Your task to perform on an android device: Search for "jbl flip 4" on bestbuy.com, select the first entry, and add it to the cart. Image 0: 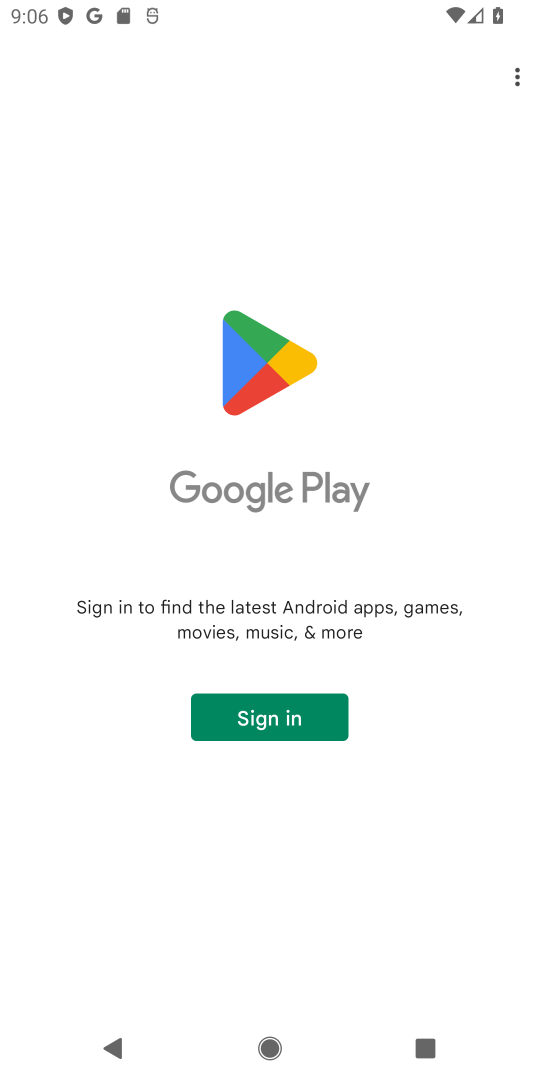
Step 0: press home button
Your task to perform on an android device: Search for "jbl flip 4" on bestbuy.com, select the first entry, and add it to the cart. Image 1: 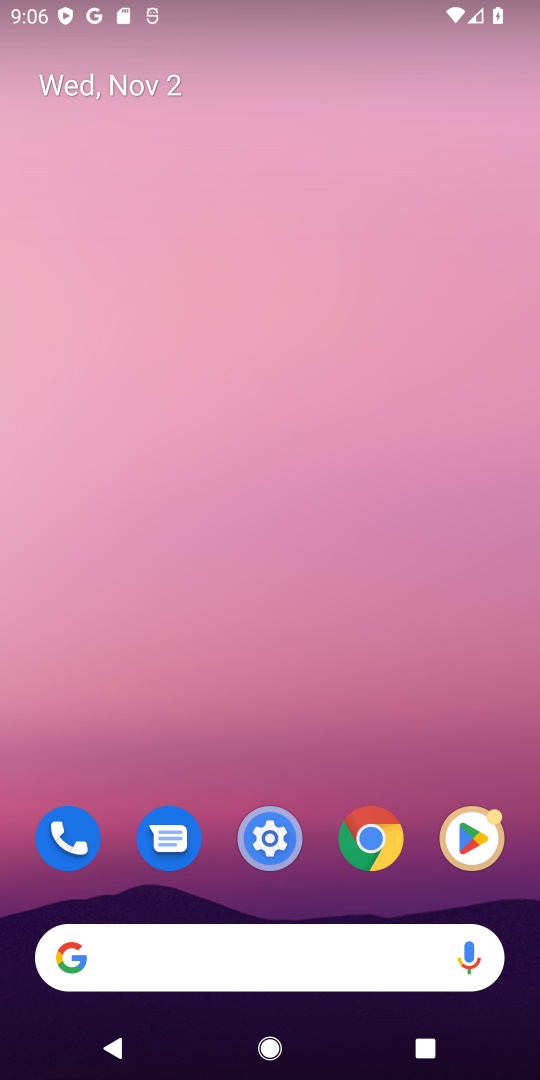
Step 1: click (364, 835)
Your task to perform on an android device: Search for "jbl flip 4" on bestbuy.com, select the first entry, and add it to the cart. Image 2: 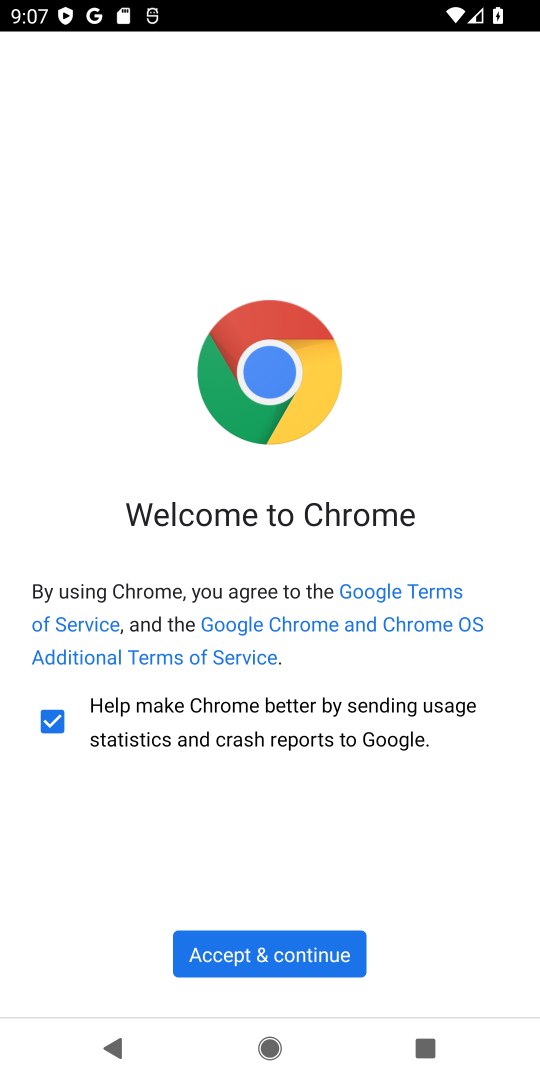
Step 2: click (254, 956)
Your task to perform on an android device: Search for "jbl flip 4" on bestbuy.com, select the first entry, and add it to the cart. Image 3: 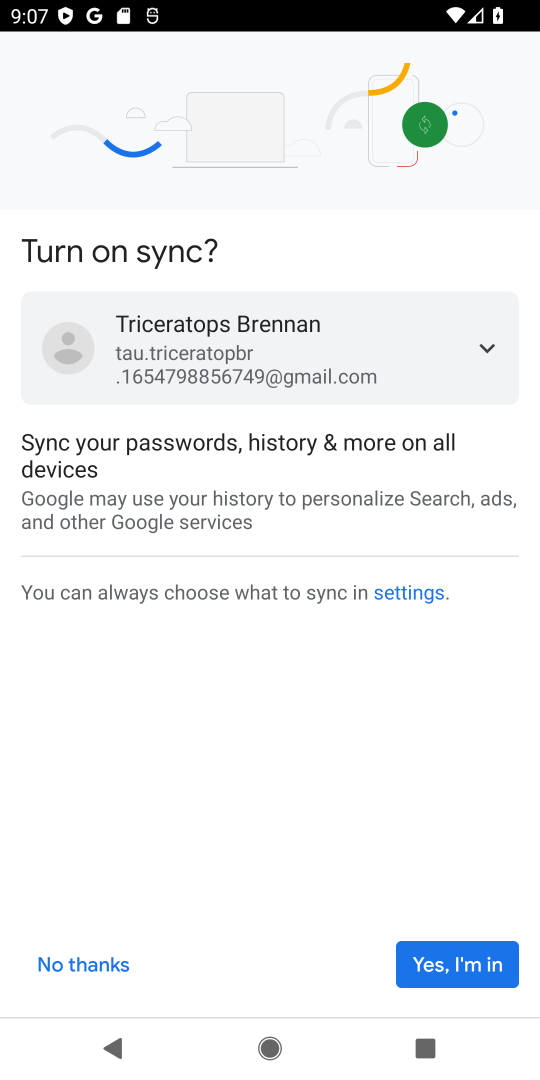
Step 3: click (471, 958)
Your task to perform on an android device: Search for "jbl flip 4" on bestbuy.com, select the first entry, and add it to the cart. Image 4: 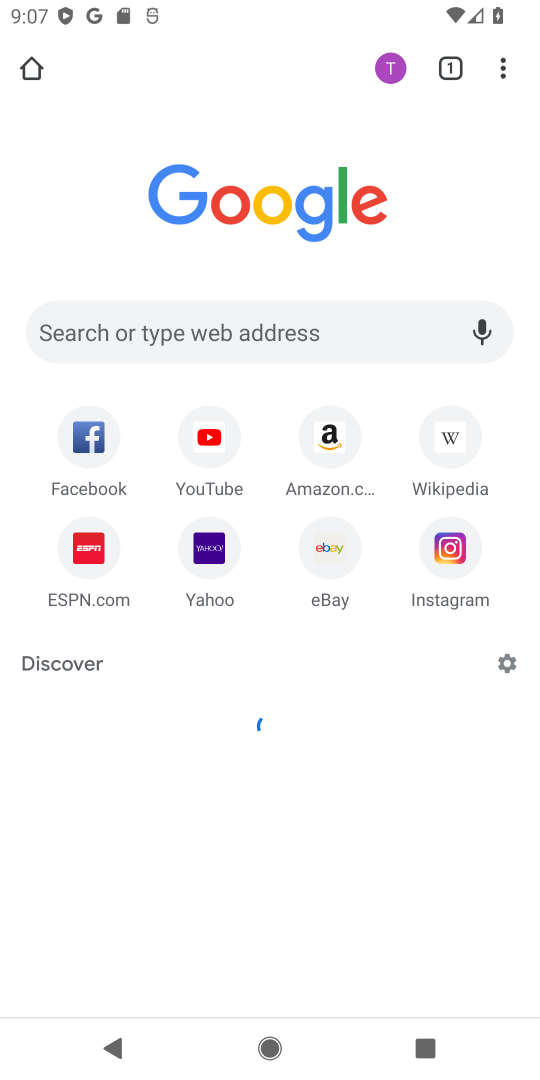
Step 4: click (333, 338)
Your task to perform on an android device: Search for "jbl flip 4" on bestbuy.com, select the first entry, and add it to the cart. Image 5: 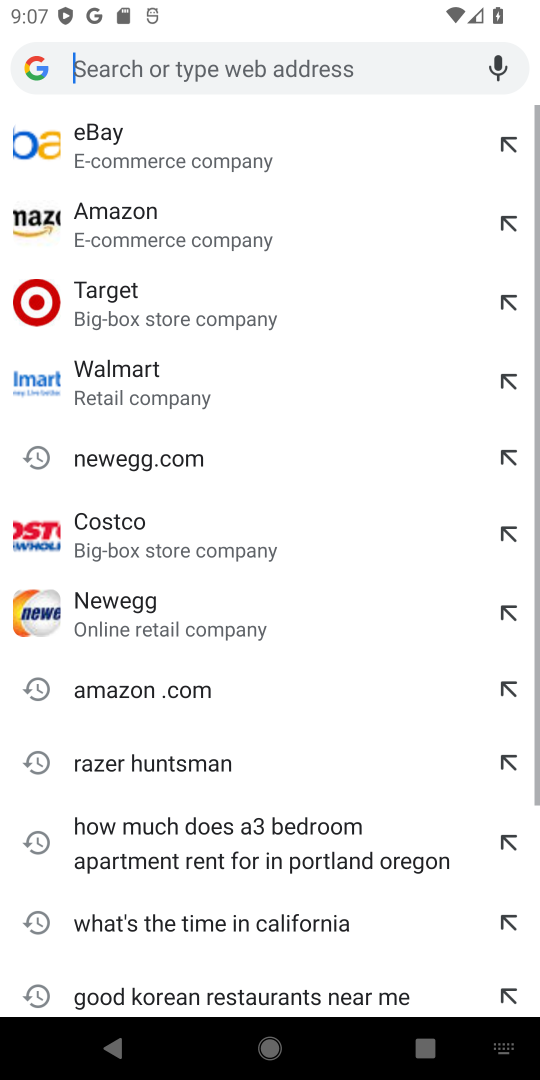
Step 5: type "bestbuy"
Your task to perform on an android device: Search for "jbl flip 4" on bestbuy.com, select the first entry, and add it to the cart. Image 6: 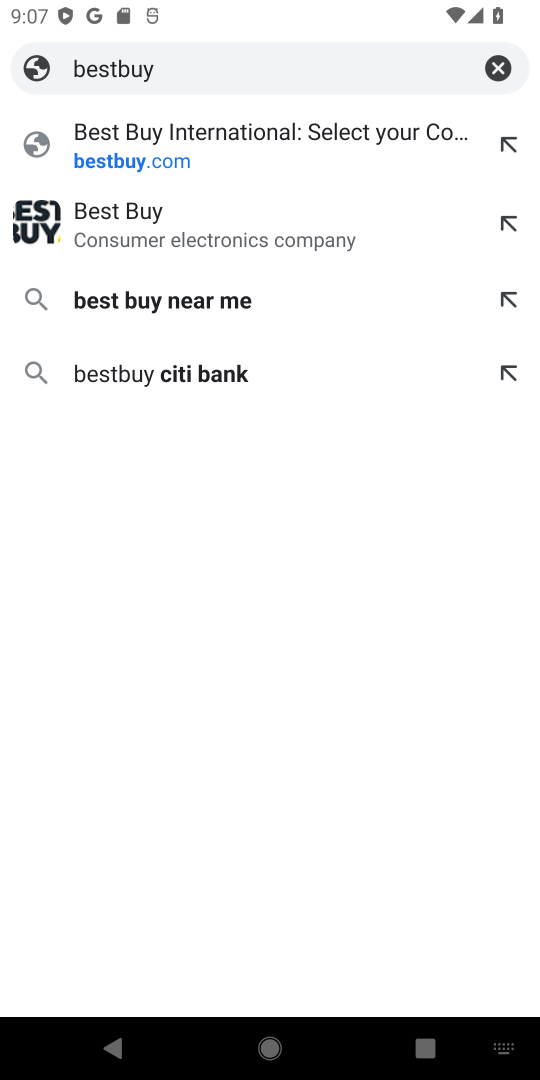
Step 6: click (259, 144)
Your task to perform on an android device: Search for "jbl flip 4" on bestbuy.com, select the first entry, and add it to the cart. Image 7: 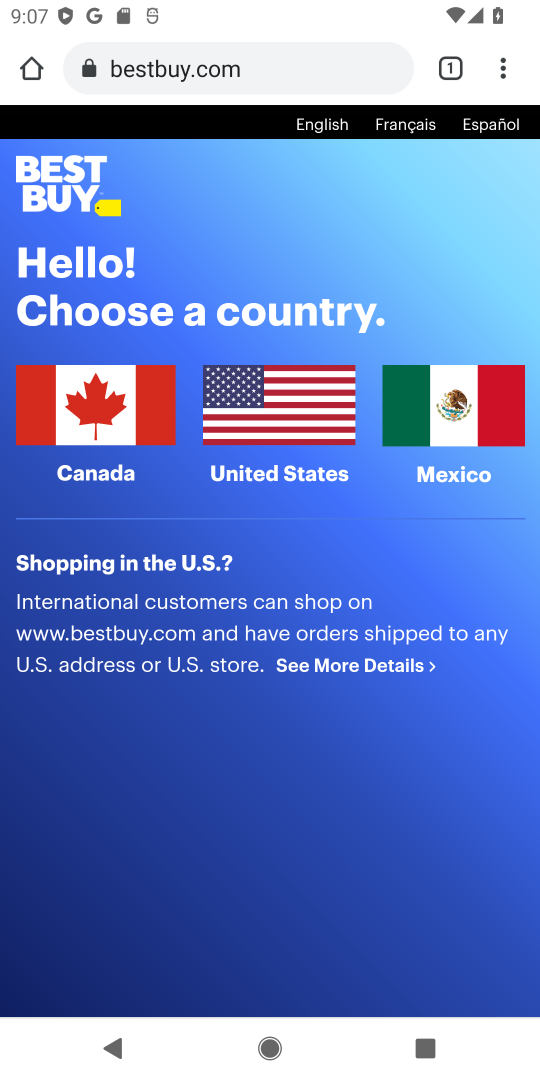
Step 7: click (324, 398)
Your task to perform on an android device: Search for "jbl flip 4" on bestbuy.com, select the first entry, and add it to the cart. Image 8: 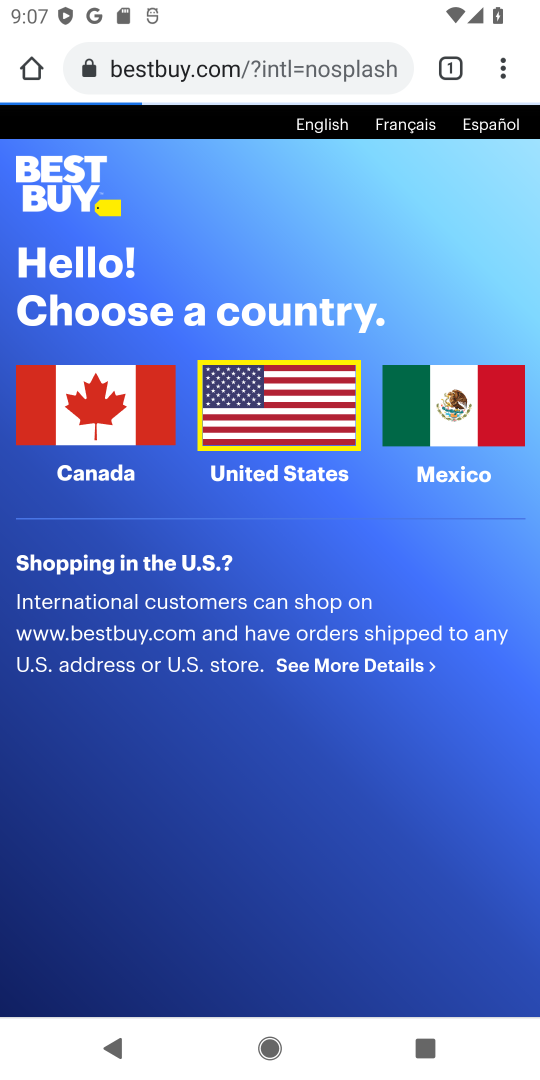
Step 8: click (352, 343)
Your task to perform on an android device: Search for "jbl flip 4" on bestbuy.com, select the first entry, and add it to the cart. Image 9: 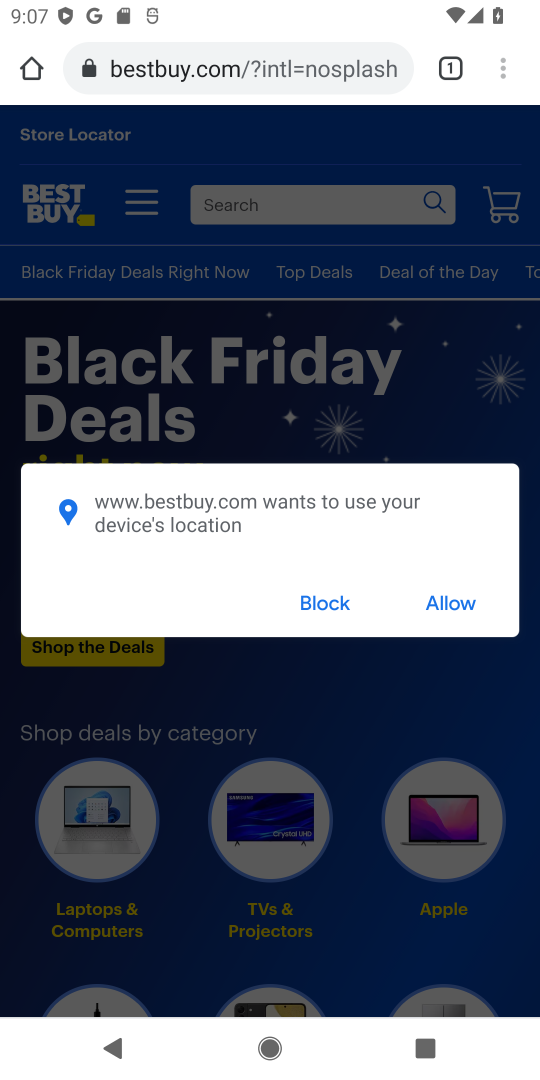
Step 9: click (316, 597)
Your task to perform on an android device: Search for "jbl flip 4" on bestbuy.com, select the first entry, and add it to the cart. Image 10: 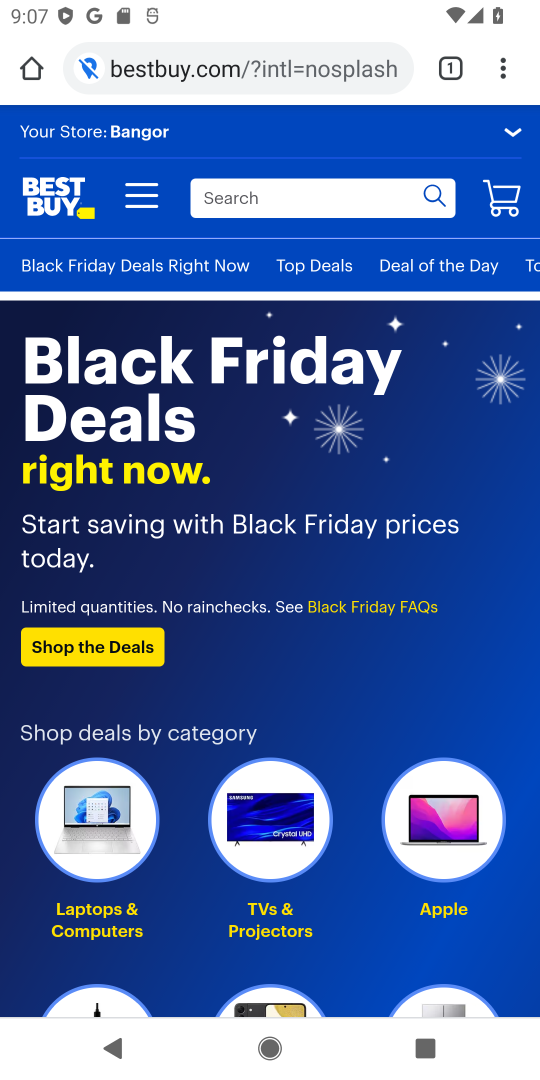
Step 10: click (315, 191)
Your task to perform on an android device: Search for "jbl flip 4" on bestbuy.com, select the first entry, and add it to the cart. Image 11: 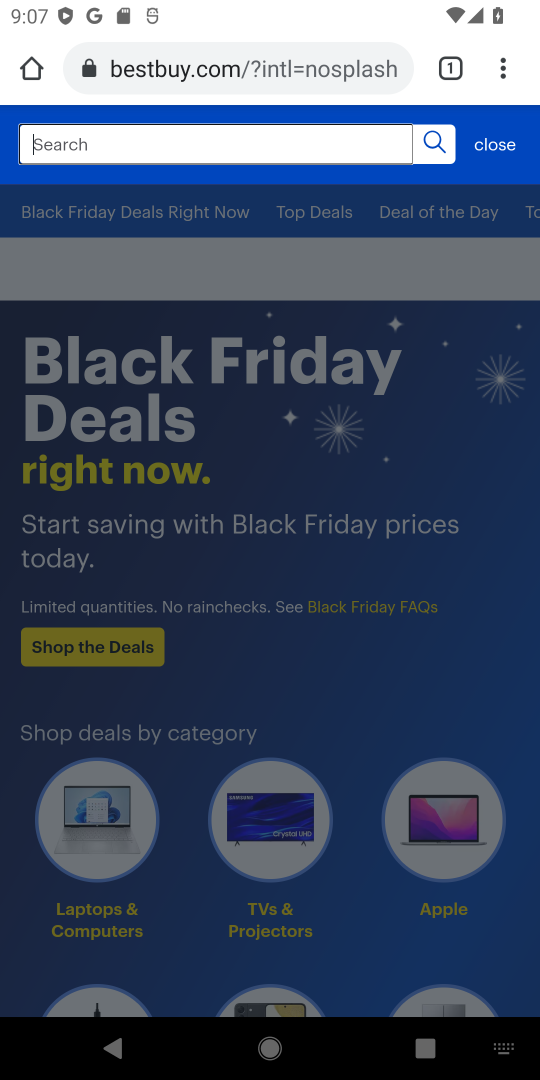
Step 11: type "jbl flip 4"
Your task to perform on an android device: Search for "jbl flip 4" on bestbuy.com, select the first entry, and add it to the cart. Image 12: 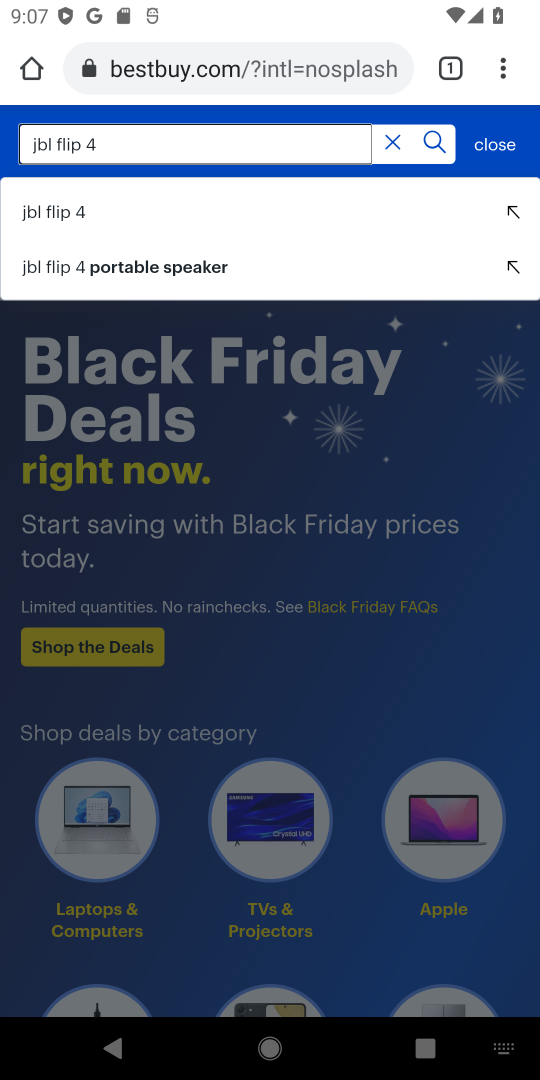
Step 12: click (63, 200)
Your task to perform on an android device: Search for "jbl flip 4" on bestbuy.com, select the first entry, and add it to the cart. Image 13: 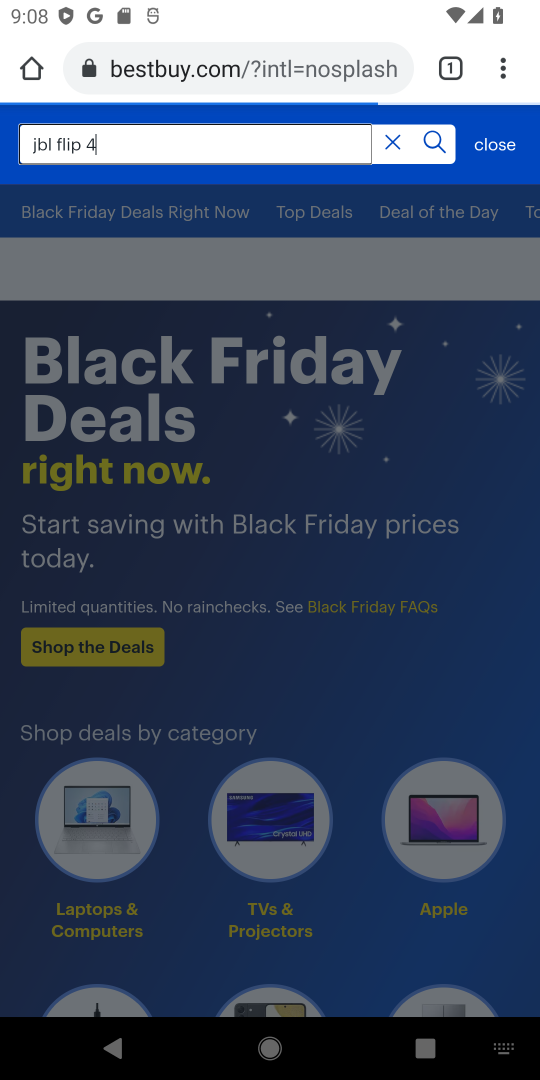
Step 13: click (60, 210)
Your task to perform on an android device: Search for "jbl flip 4" on bestbuy.com, select the first entry, and add it to the cart. Image 14: 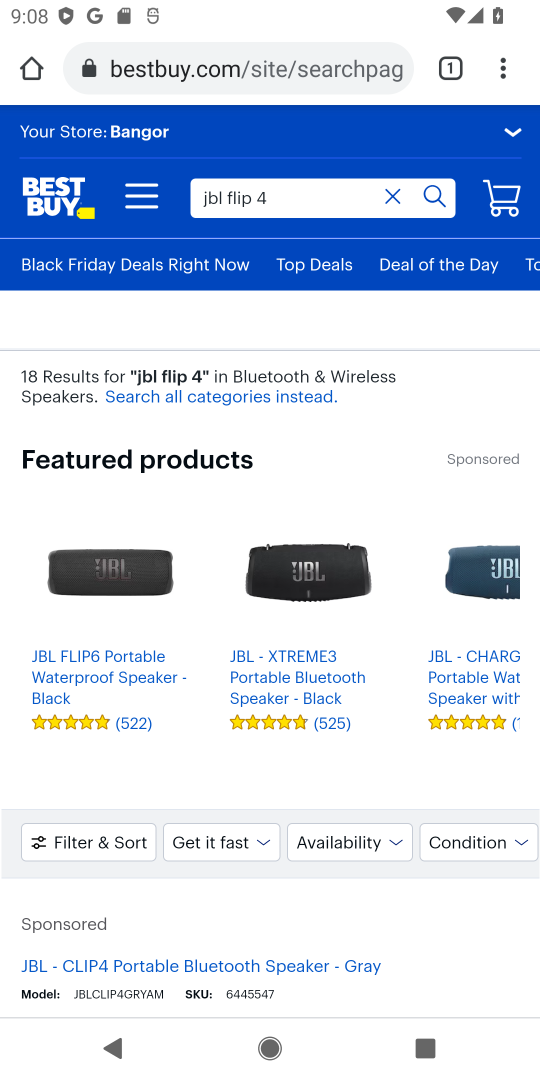
Step 14: drag from (205, 923) to (306, 522)
Your task to perform on an android device: Search for "jbl flip 4" on bestbuy.com, select the first entry, and add it to the cart. Image 15: 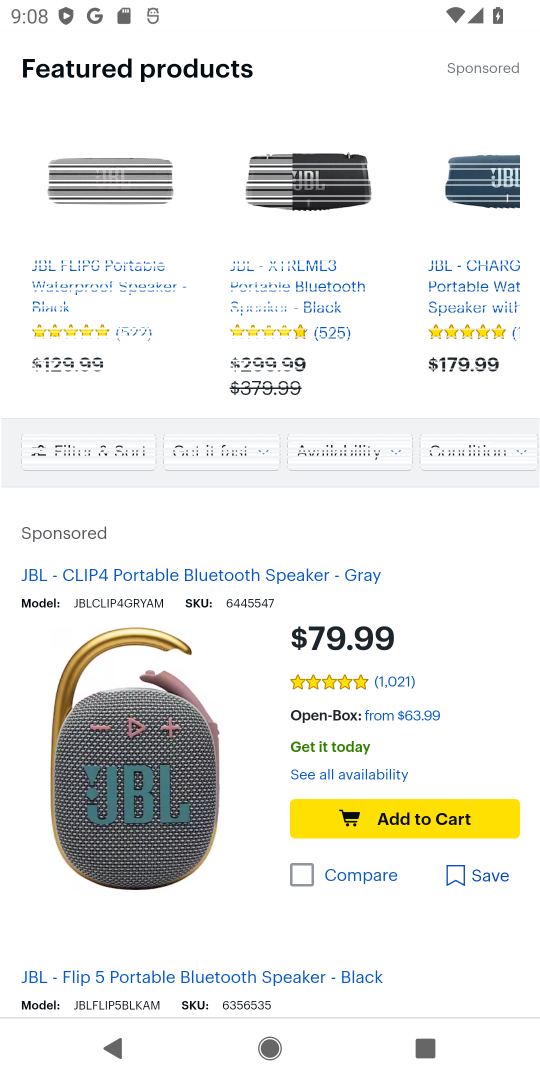
Step 15: drag from (457, 775) to (453, 415)
Your task to perform on an android device: Search for "jbl flip 4" on bestbuy.com, select the first entry, and add it to the cart. Image 16: 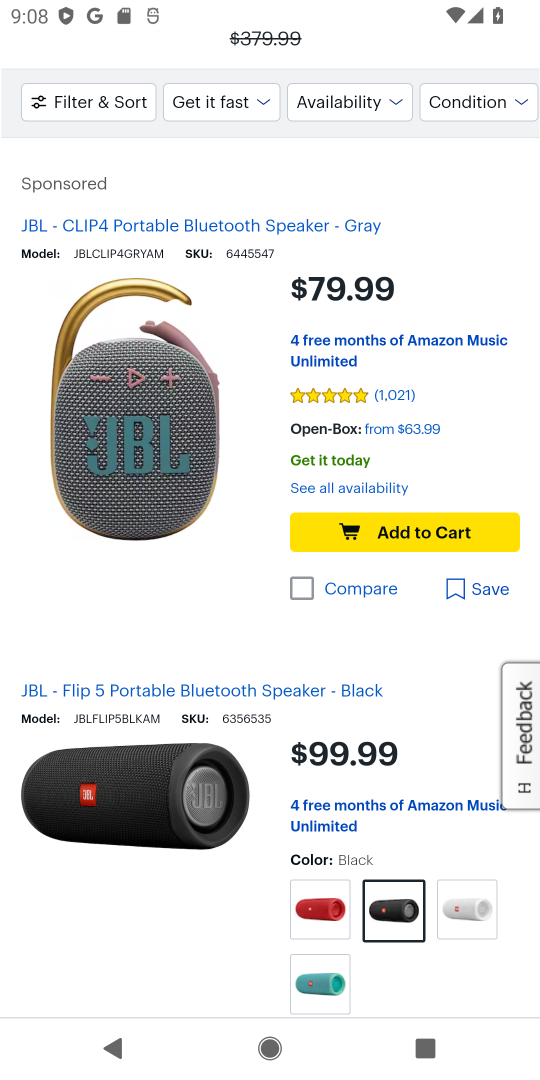
Step 16: click (428, 531)
Your task to perform on an android device: Search for "jbl flip 4" on bestbuy.com, select the first entry, and add it to the cart. Image 17: 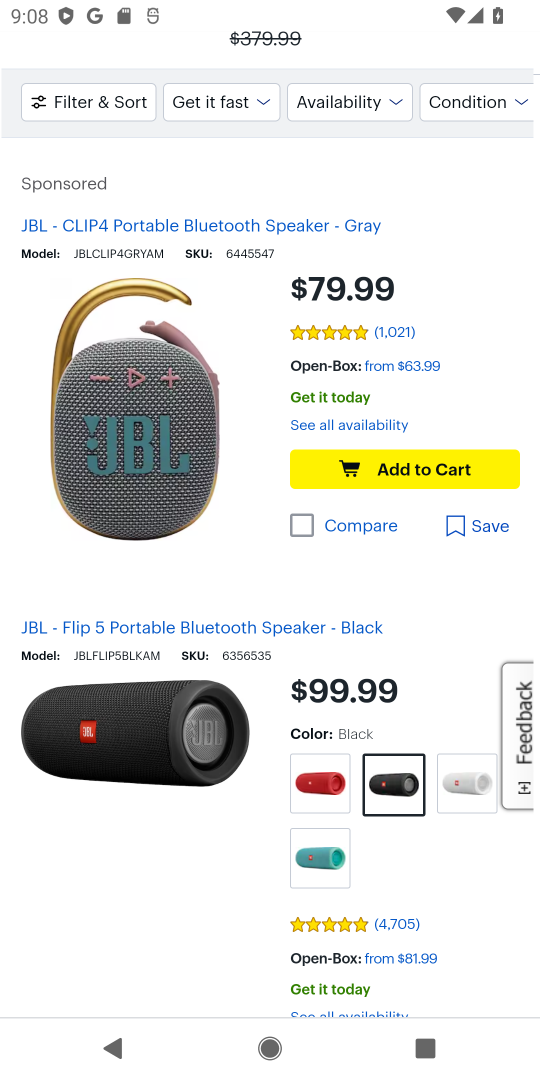
Step 17: task complete